Your task to perform on an android device: Open wifi settings Image 0: 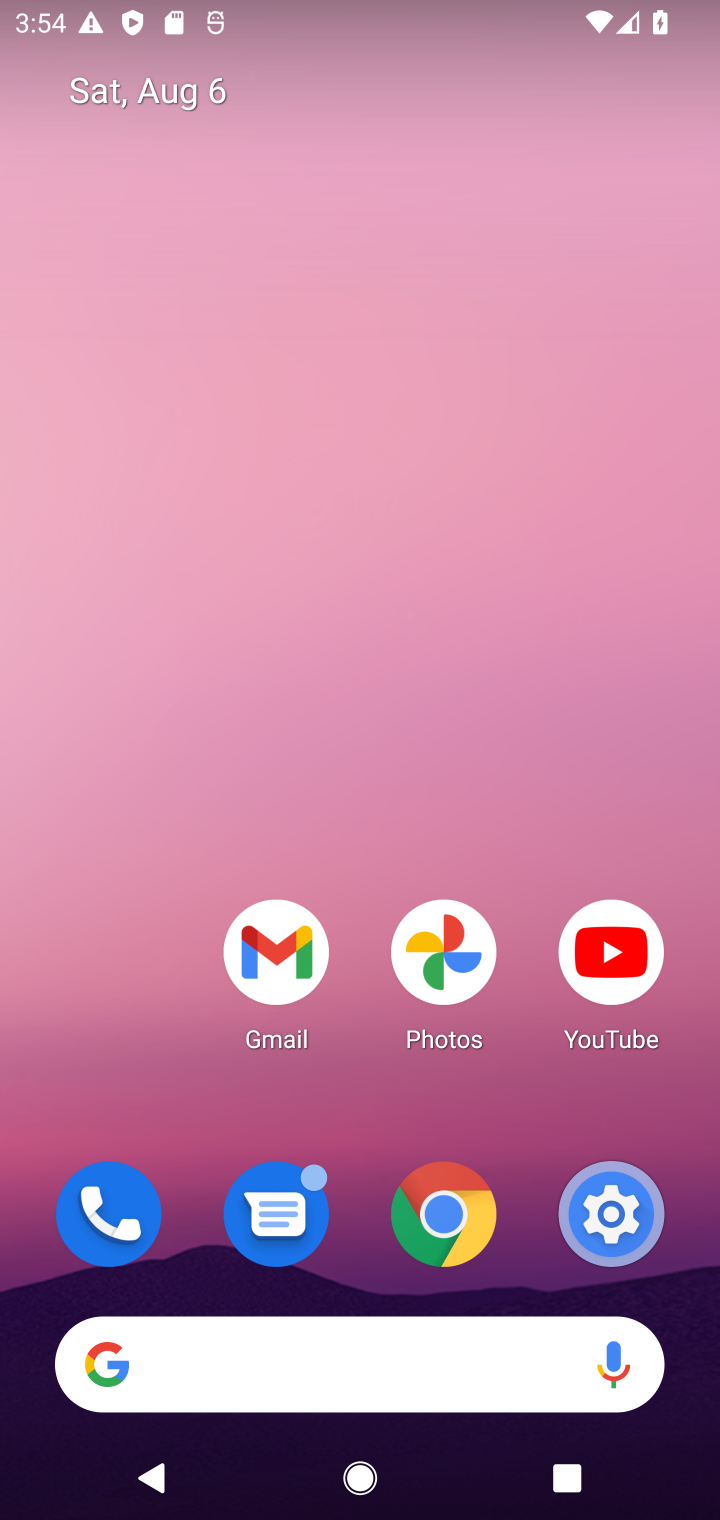
Step 0: click (621, 1222)
Your task to perform on an android device: Open wifi settings Image 1: 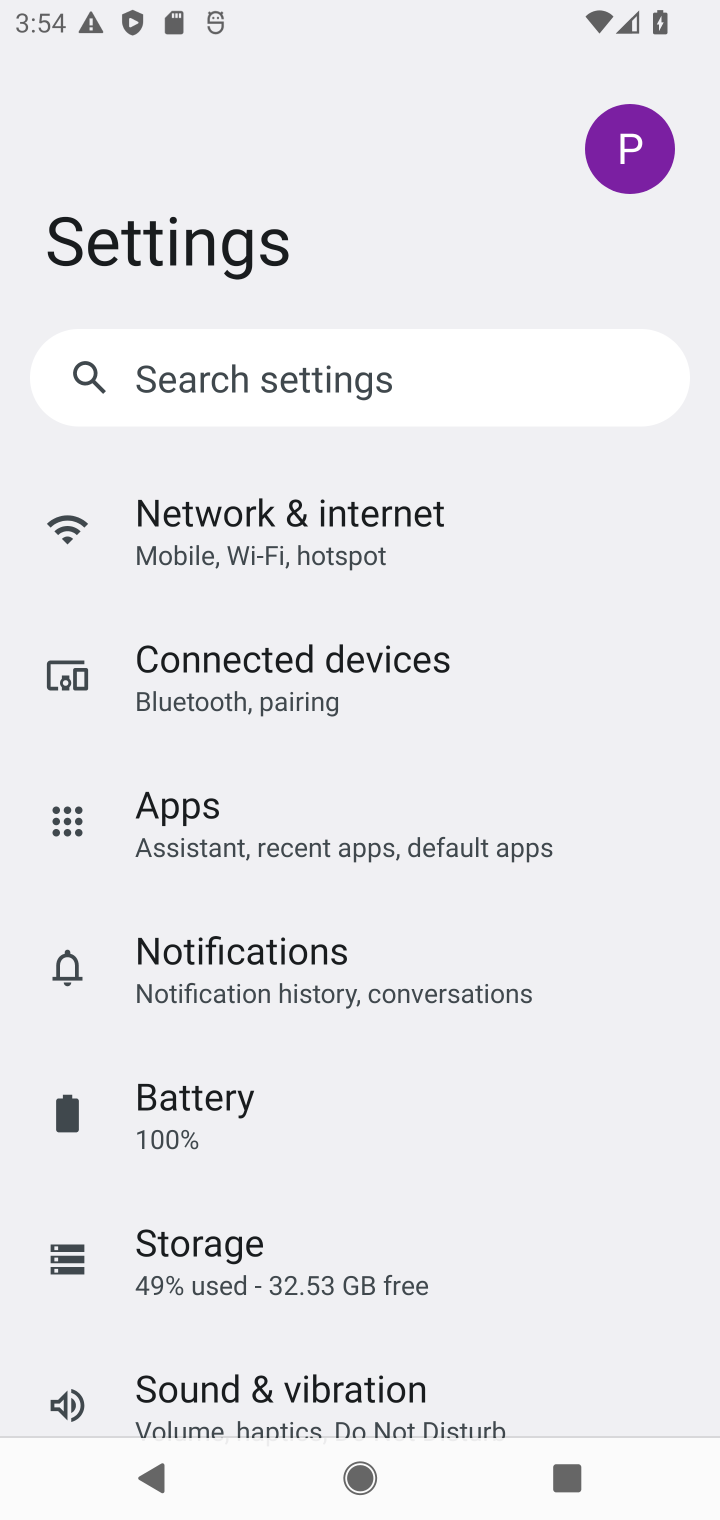
Step 1: click (345, 529)
Your task to perform on an android device: Open wifi settings Image 2: 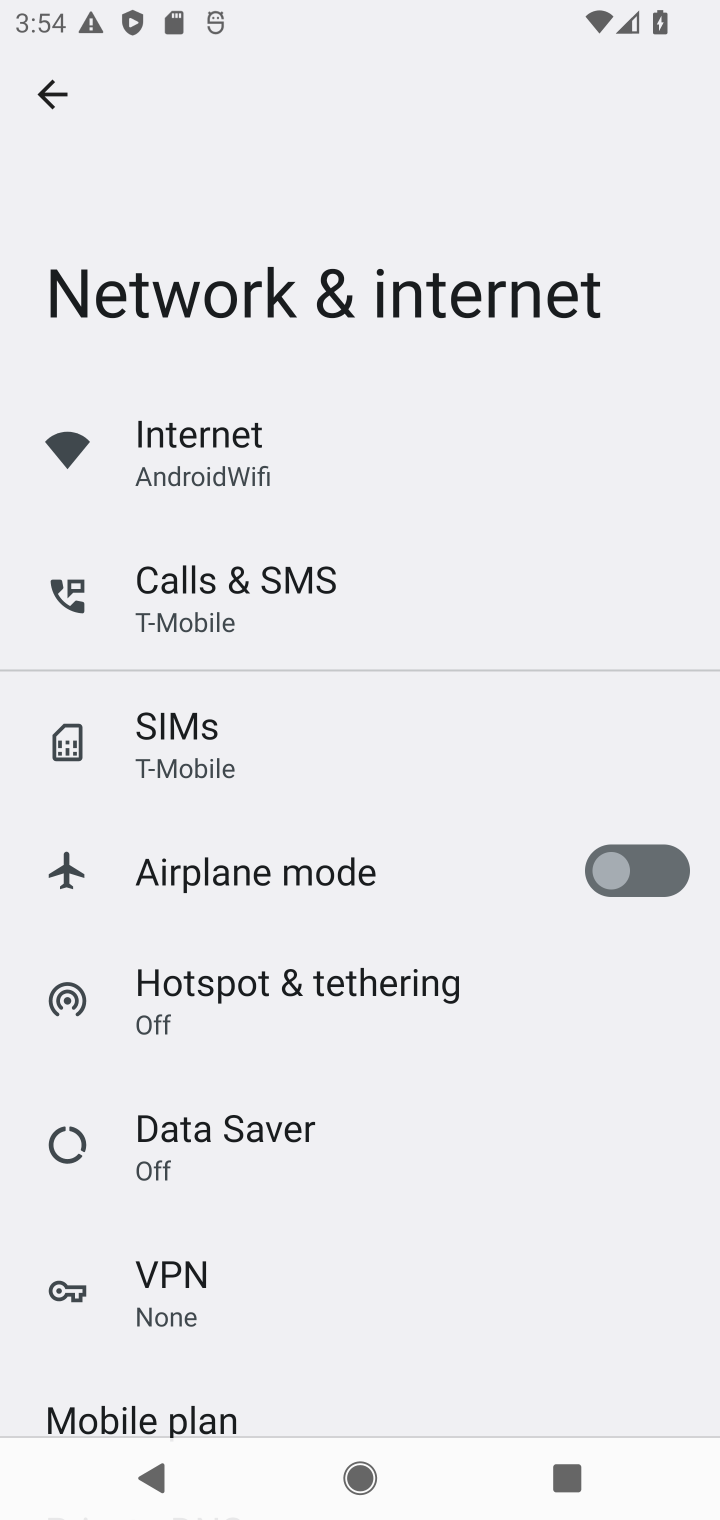
Step 2: click (215, 465)
Your task to perform on an android device: Open wifi settings Image 3: 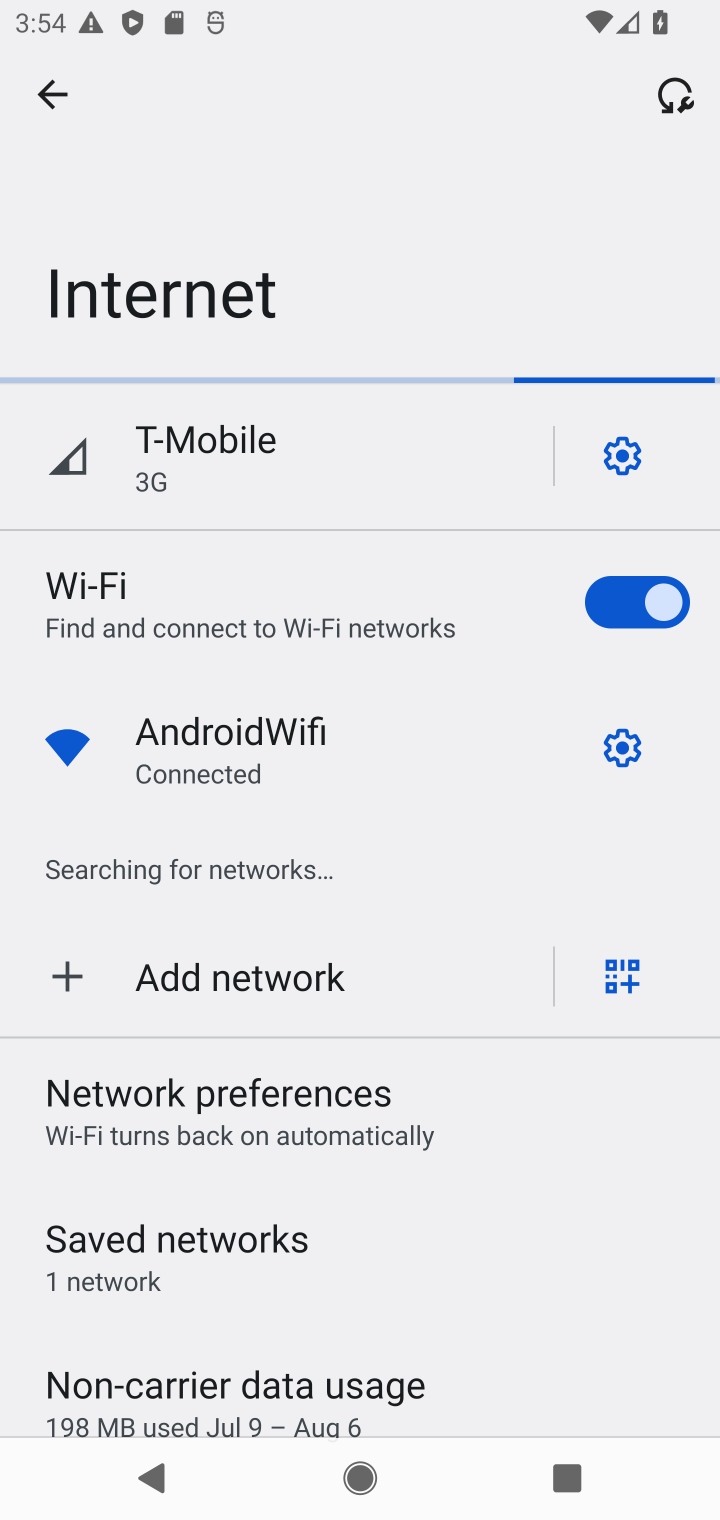
Step 3: click (256, 766)
Your task to perform on an android device: Open wifi settings Image 4: 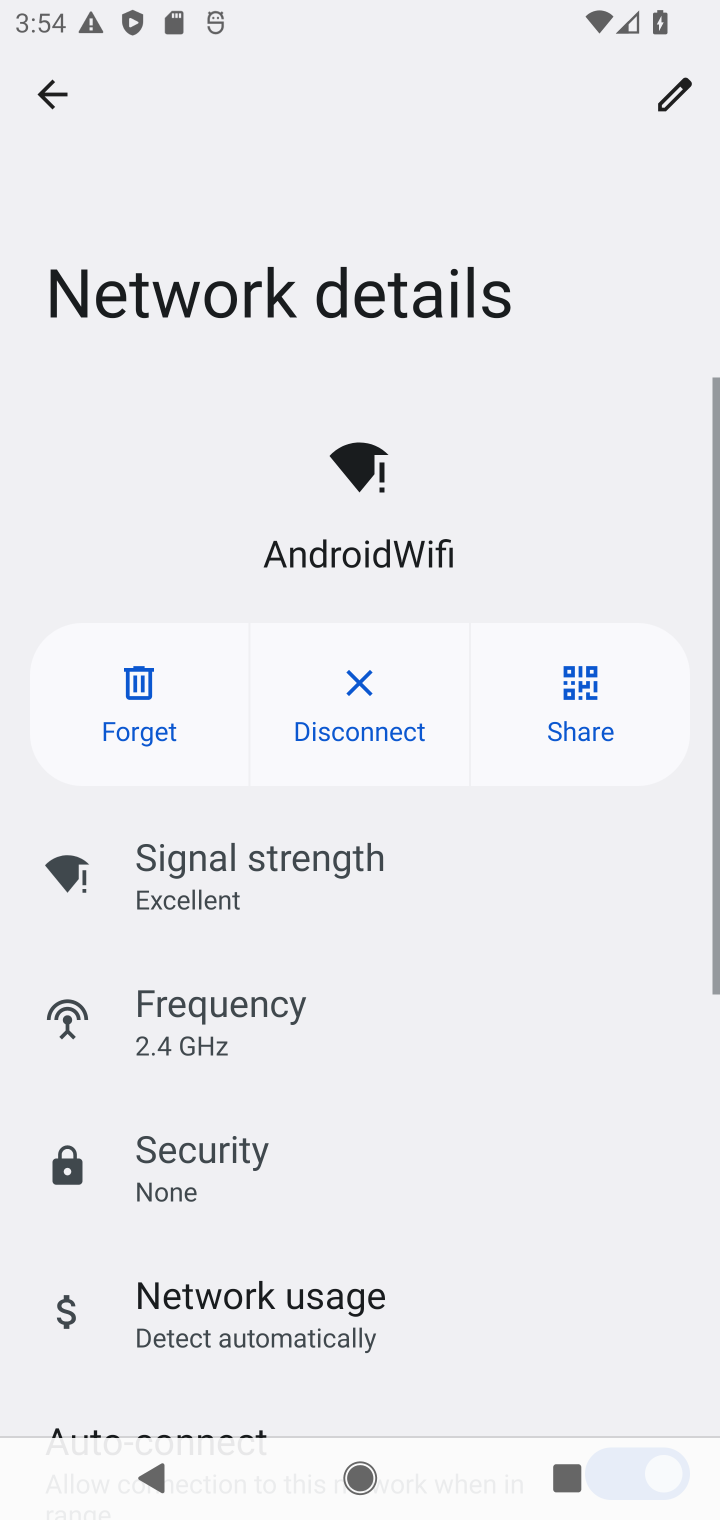
Step 4: task complete